Your task to perform on an android device: turn on notifications settings in the gmail app Image 0: 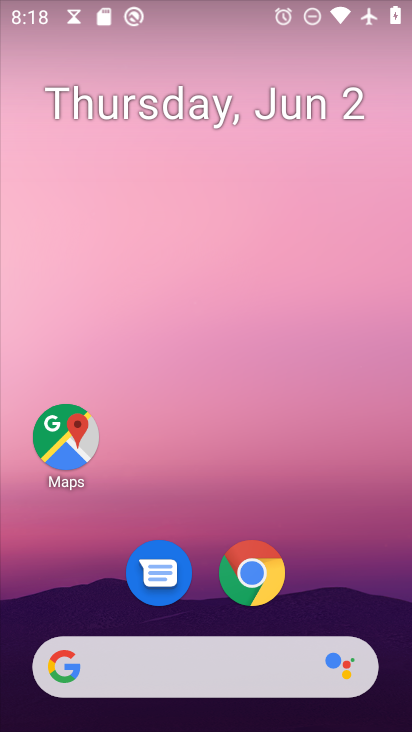
Step 0: press home button
Your task to perform on an android device: turn on notifications settings in the gmail app Image 1: 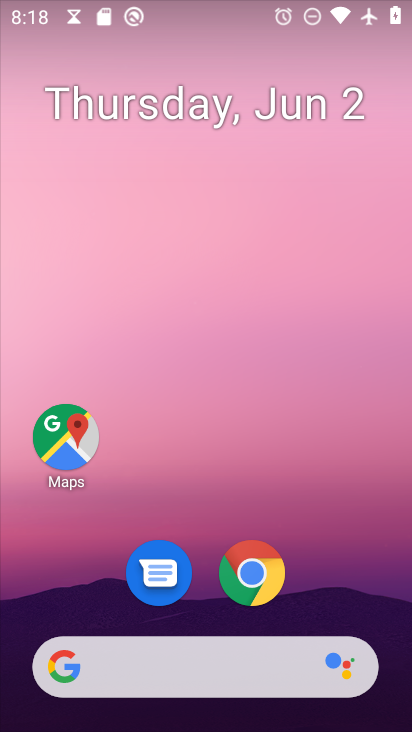
Step 1: drag from (208, 544) to (305, 174)
Your task to perform on an android device: turn on notifications settings in the gmail app Image 2: 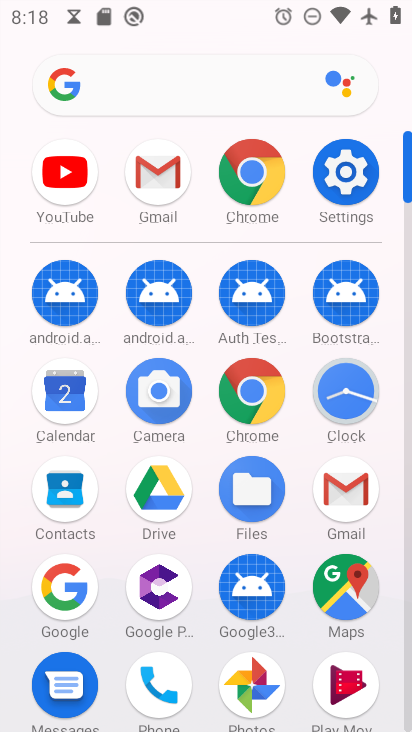
Step 2: click (155, 187)
Your task to perform on an android device: turn on notifications settings in the gmail app Image 3: 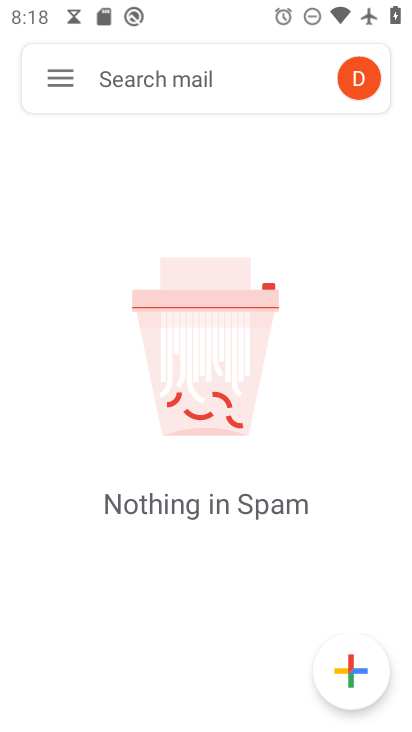
Step 3: click (68, 77)
Your task to perform on an android device: turn on notifications settings in the gmail app Image 4: 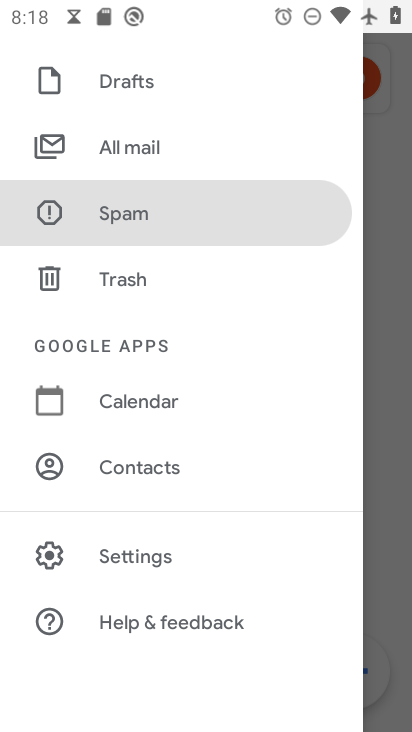
Step 4: click (151, 552)
Your task to perform on an android device: turn on notifications settings in the gmail app Image 5: 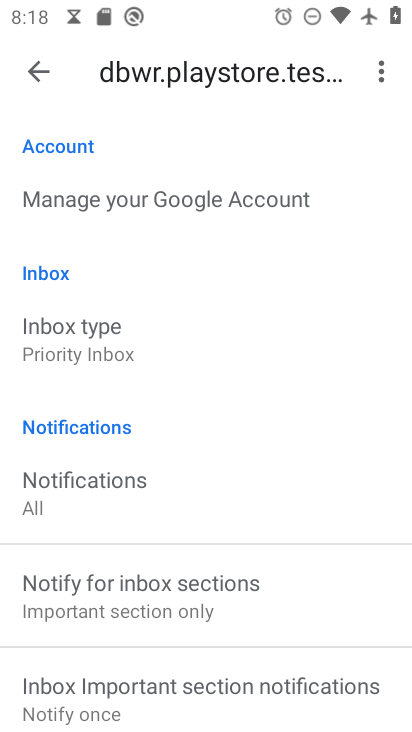
Step 5: click (93, 488)
Your task to perform on an android device: turn on notifications settings in the gmail app Image 6: 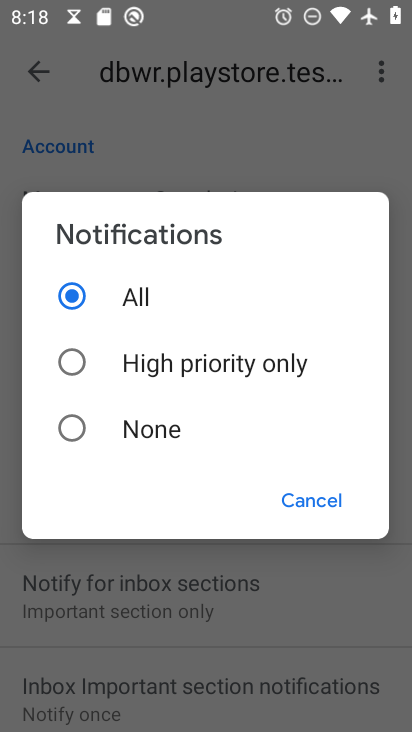
Step 6: task complete